Your task to perform on an android device: turn on the 12-hour format for clock Image 0: 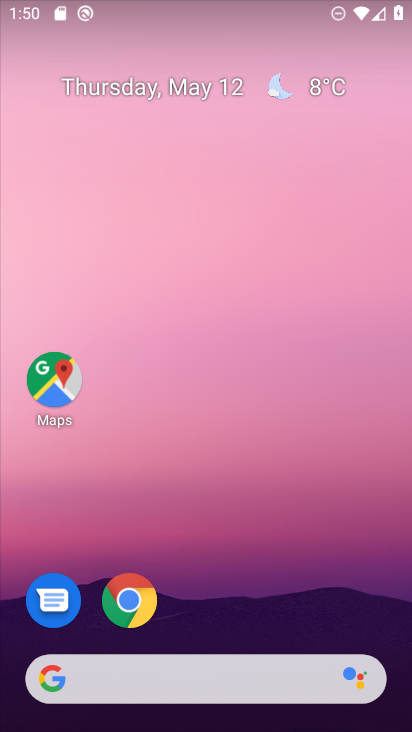
Step 0: drag from (223, 717) to (217, 250)
Your task to perform on an android device: turn on the 12-hour format for clock Image 1: 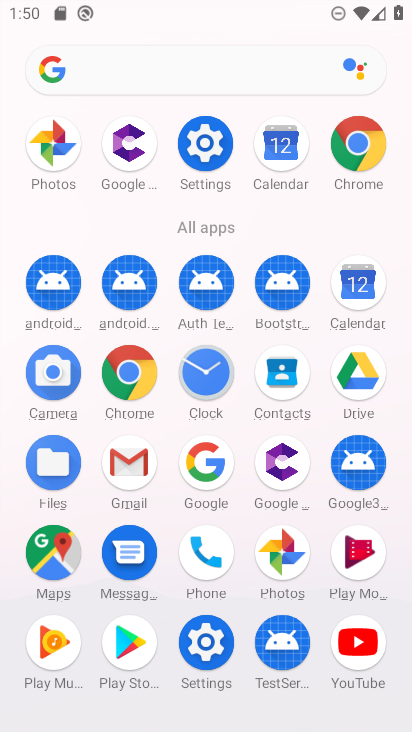
Step 1: click (205, 372)
Your task to perform on an android device: turn on the 12-hour format for clock Image 2: 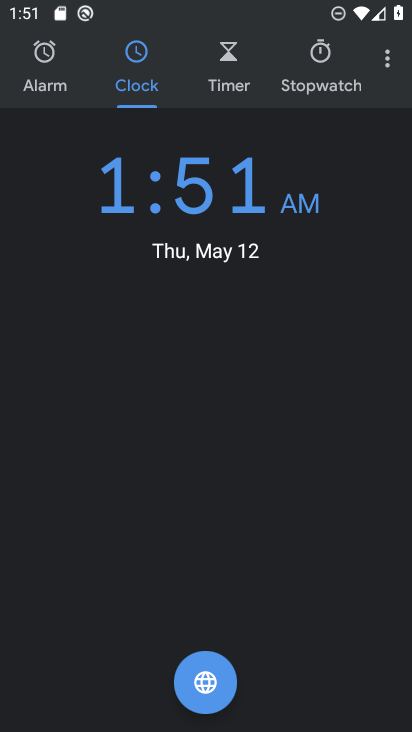
Step 2: click (388, 63)
Your task to perform on an android device: turn on the 12-hour format for clock Image 3: 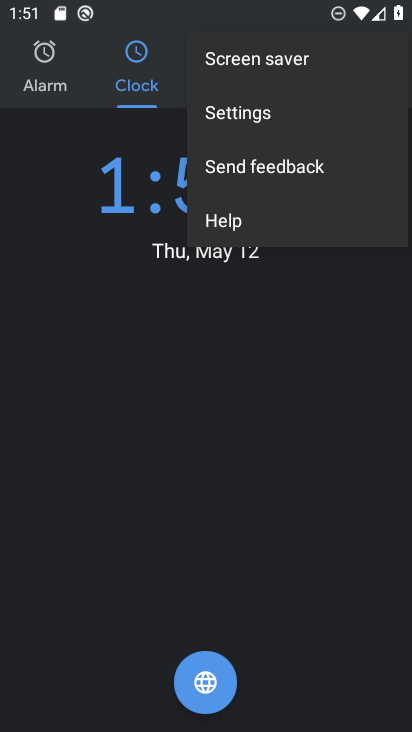
Step 3: click (262, 116)
Your task to perform on an android device: turn on the 12-hour format for clock Image 4: 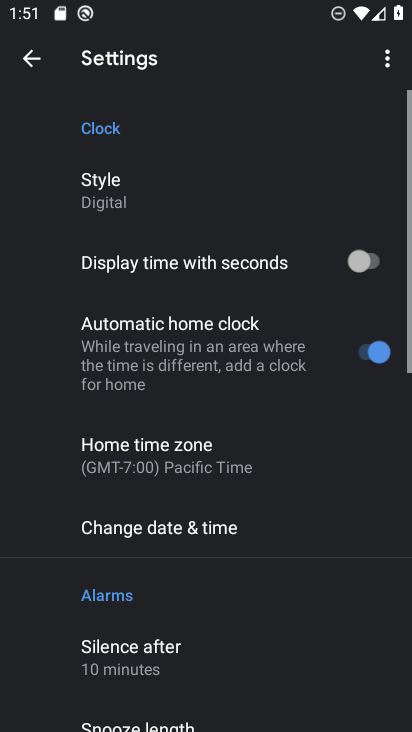
Step 4: drag from (149, 656) to (168, 525)
Your task to perform on an android device: turn on the 12-hour format for clock Image 5: 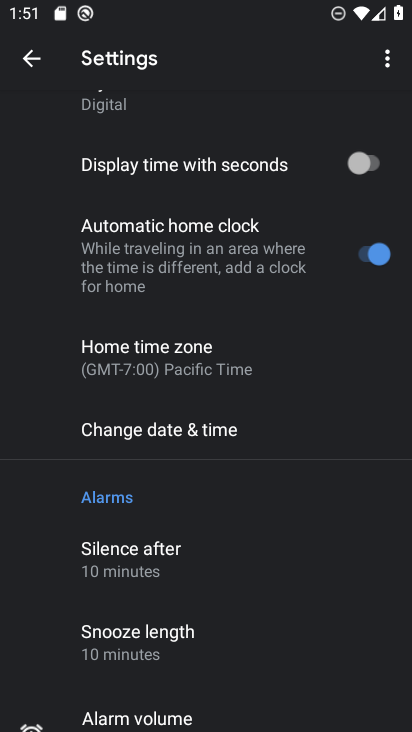
Step 5: click (156, 431)
Your task to perform on an android device: turn on the 12-hour format for clock Image 6: 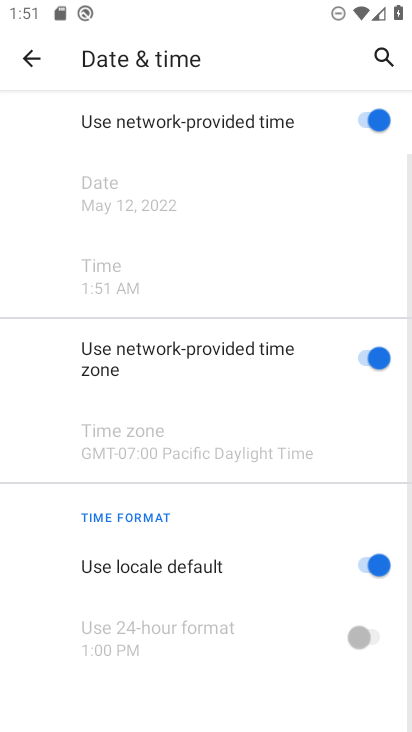
Step 6: task complete